Your task to perform on an android device: change the clock display to analog Image 0: 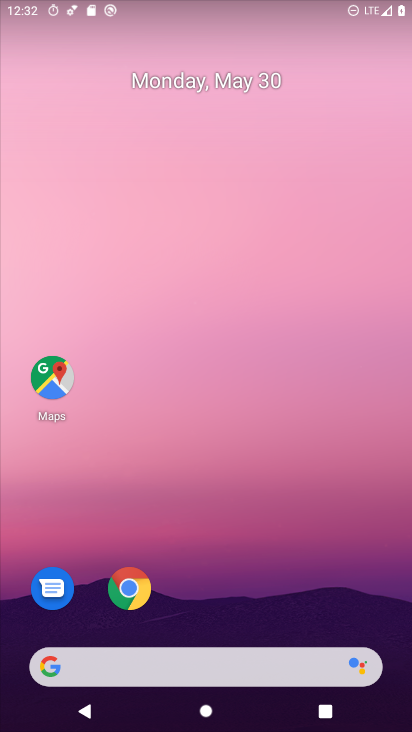
Step 0: drag from (287, 571) to (306, 105)
Your task to perform on an android device: change the clock display to analog Image 1: 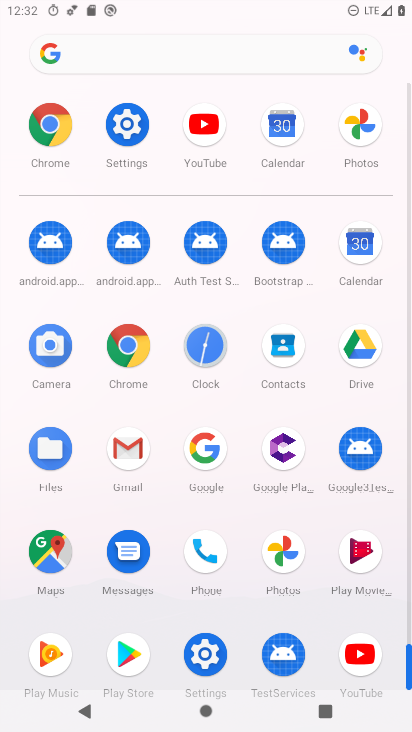
Step 1: click (226, 655)
Your task to perform on an android device: change the clock display to analog Image 2: 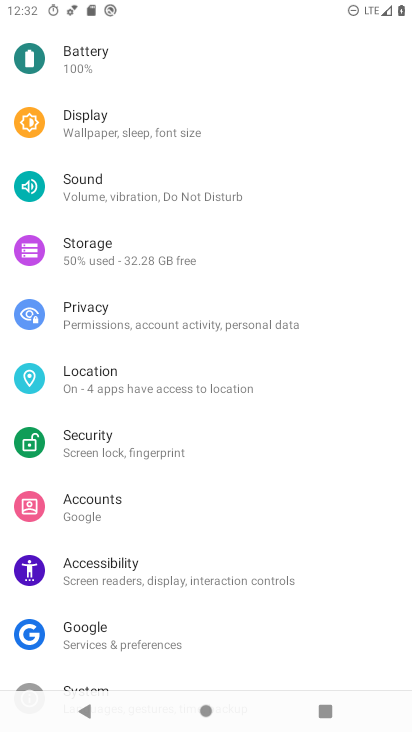
Step 2: press home button
Your task to perform on an android device: change the clock display to analog Image 3: 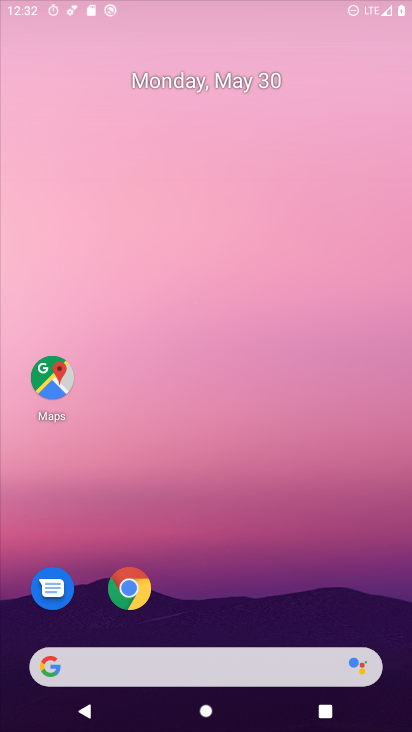
Step 3: drag from (207, 539) to (256, 96)
Your task to perform on an android device: change the clock display to analog Image 4: 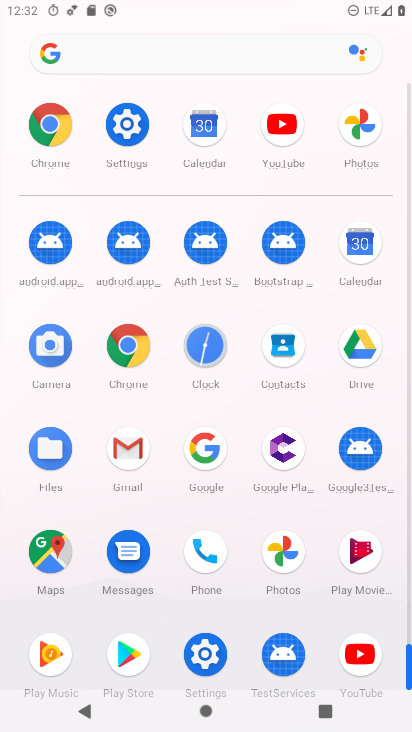
Step 4: click (215, 361)
Your task to perform on an android device: change the clock display to analog Image 5: 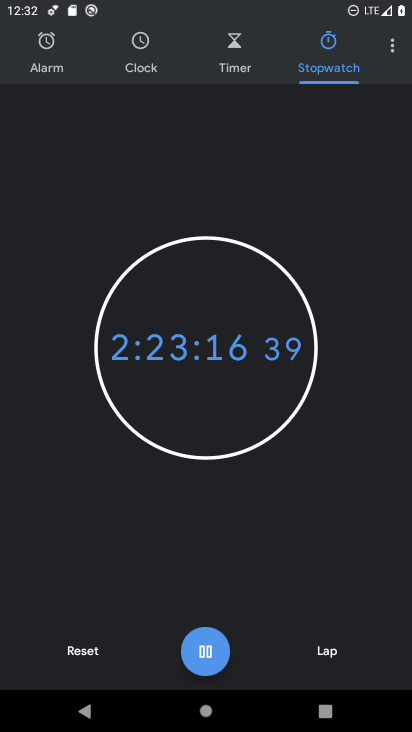
Step 5: click (393, 50)
Your task to perform on an android device: change the clock display to analog Image 6: 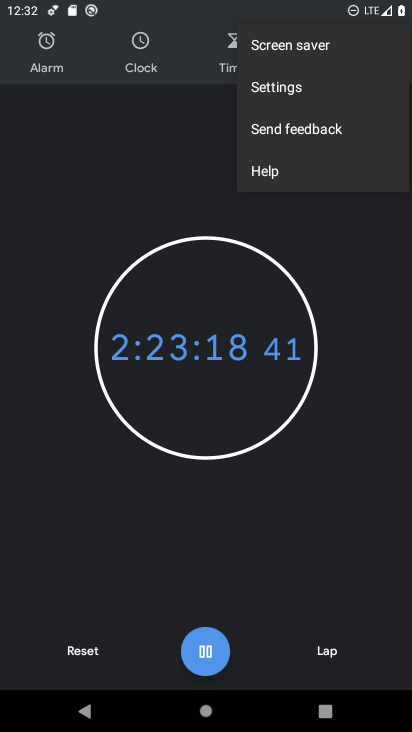
Step 6: click (276, 96)
Your task to perform on an android device: change the clock display to analog Image 7: 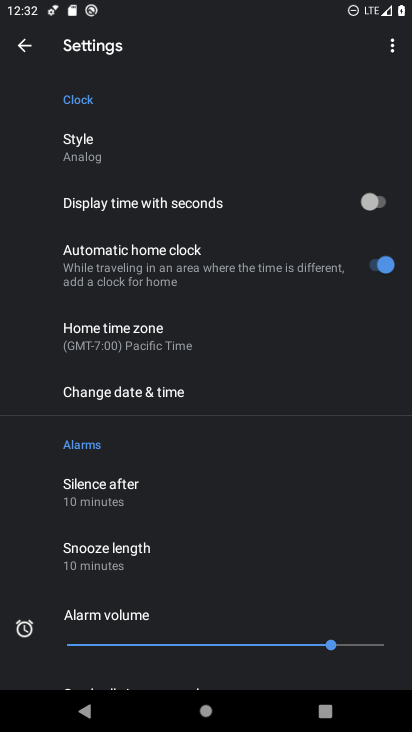
Step 7: task complete